Your task to perform on an android device: search for starred emails in the gmail app Image 0: 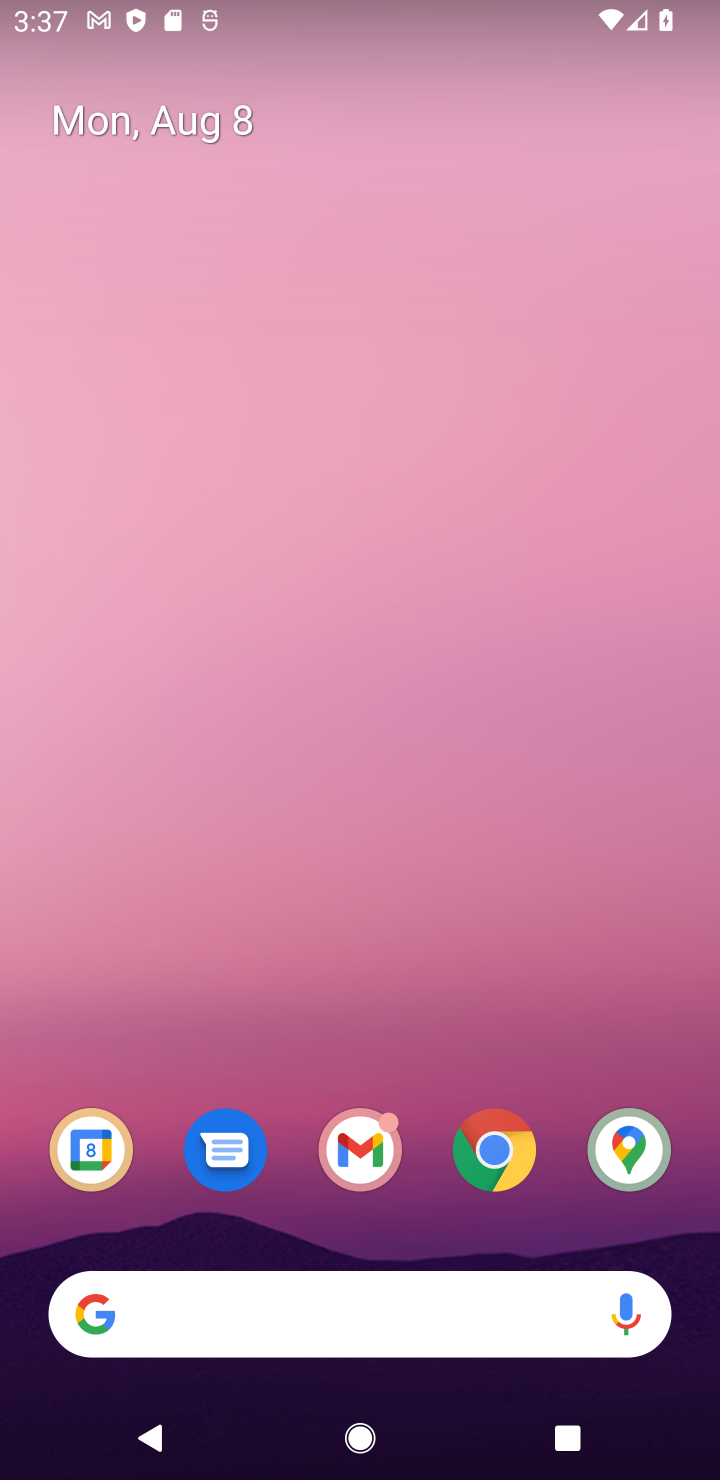
Step 0: click (390, 1177)
Your task to perform on an android device: search for starred emails in the gmail app Image 1: 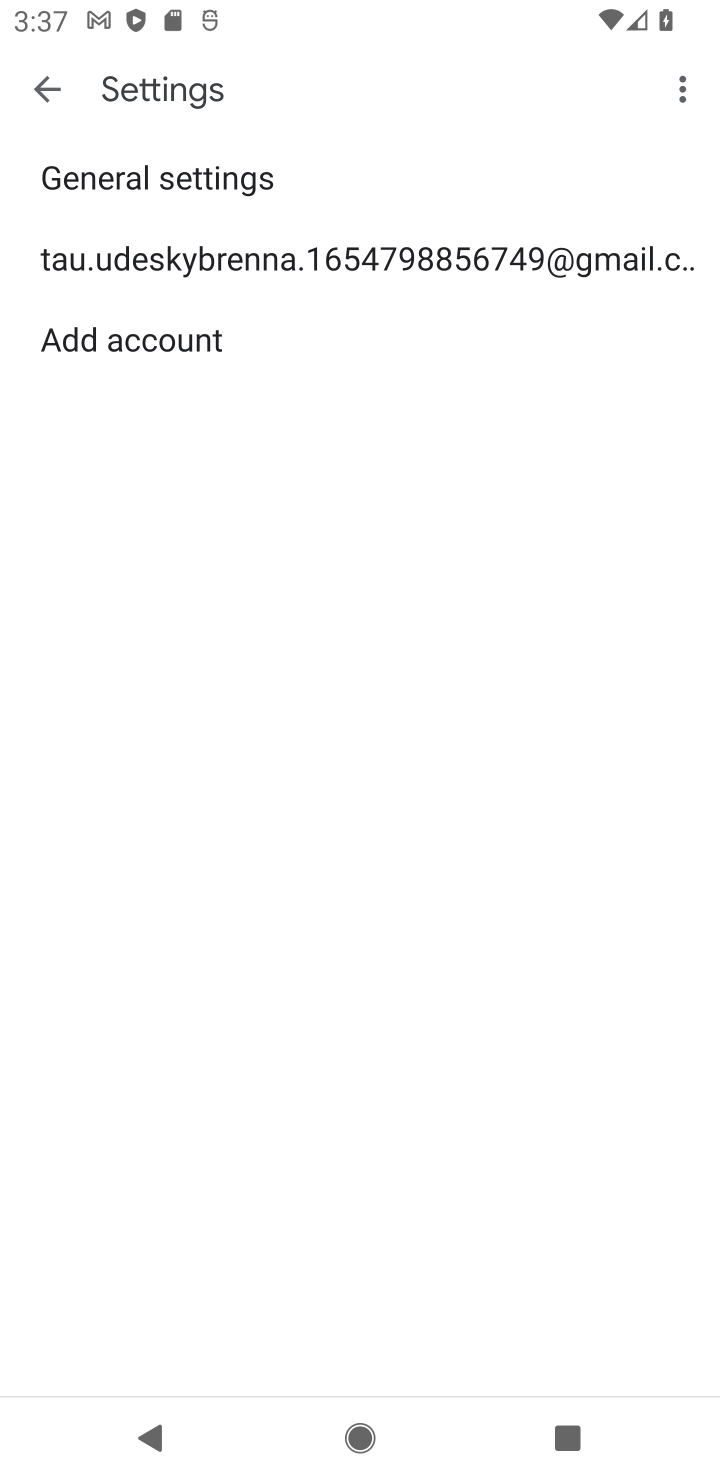
Step 1: task complete